Your task to perform on an android device: change the clock display to digital Image 0: 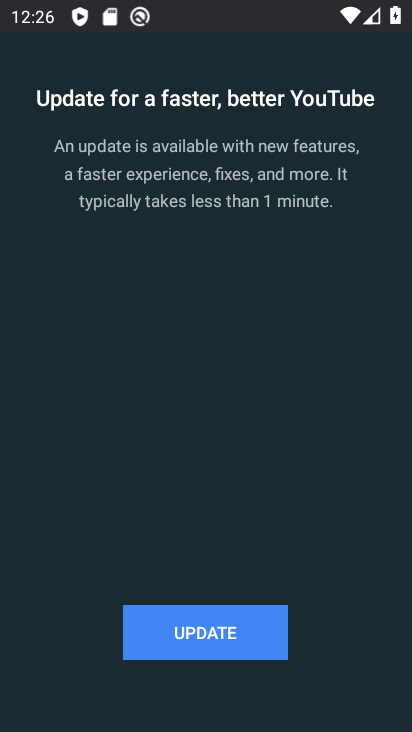
Step 0: drag from (236, 614) to (239, 255)
Your task to perform on an android device: change the clock display to digital Image 1: 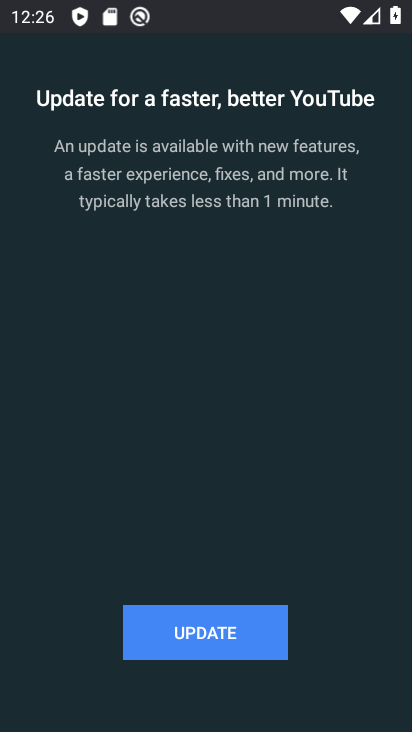
Step 1: press home button
Your task to perform on an android device: change the clock display to digital Image 2: 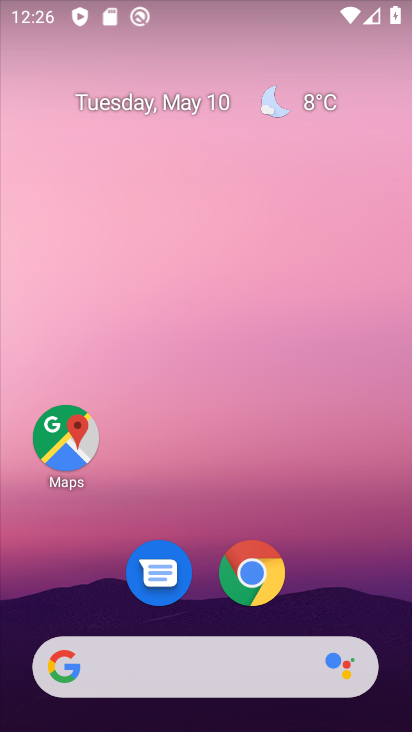
Step 2: drag from (221, 618) to (227, 60)
Your task to perform on an android device: change the clock display to digital Image 3: 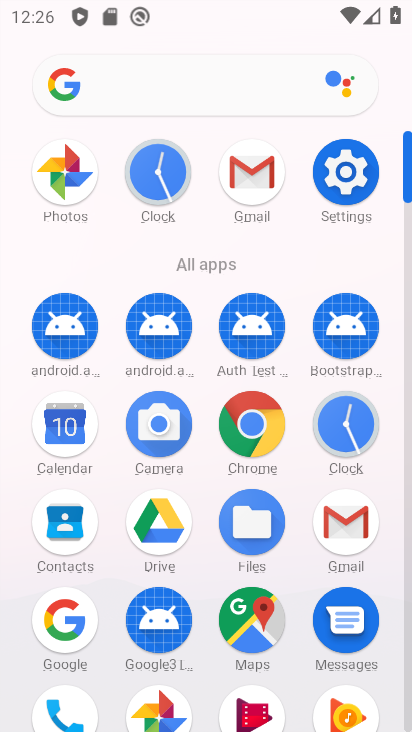
Step 3: click (351, 420)
Your task to perform on an android device: change the clock display to digital Image 4: 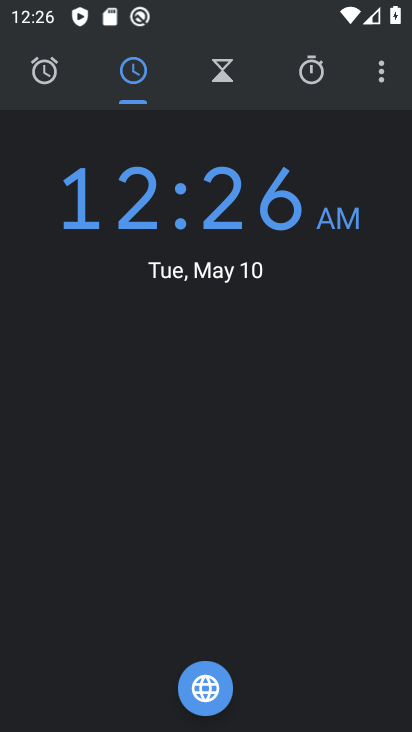
Step 4: click (387, 84)
Your task to perform on an android device: change the clock display to digital Image 5: 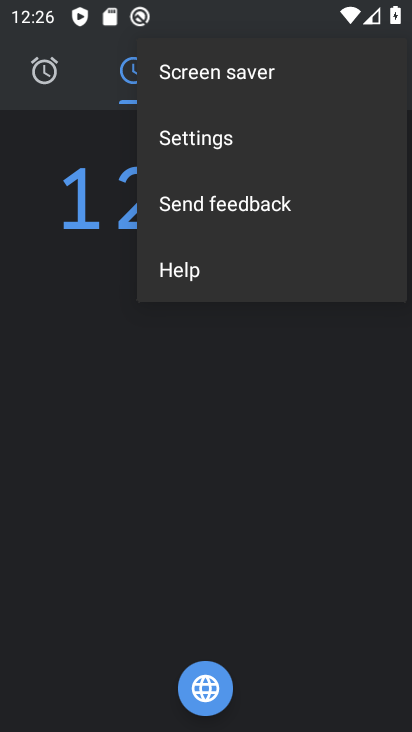
Step 5: click (226, 146)
Your task to perform on an android device: change the clock display to digital Image 6: 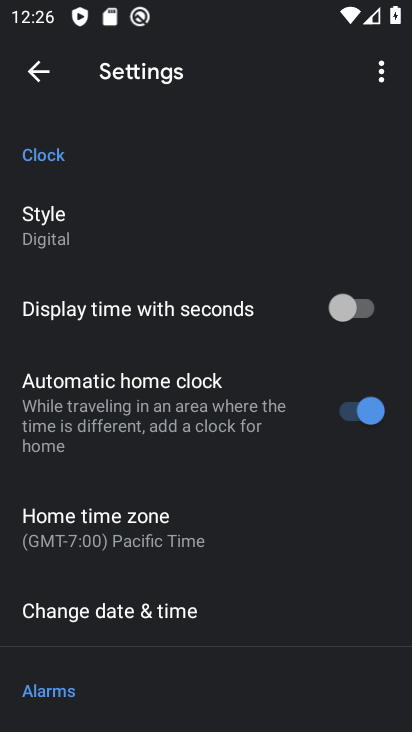
Step 6: task complete